Your task to perform on an android device: Find coffee shops on Maps Image 0: 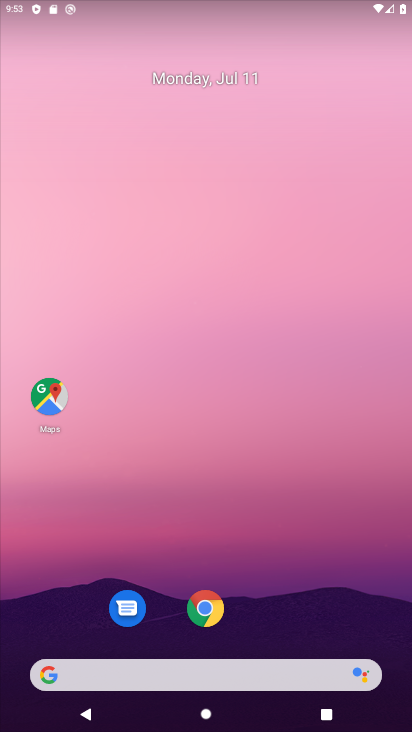
Step 0: click (41, 388)
Your task to perform on an android device: Find coffee shops on Maps Image 1: 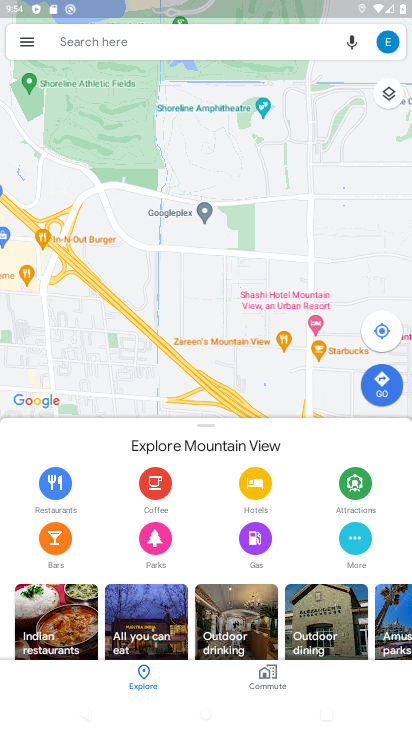
Step 1: click (59, 44)
Your task to perform on an android device: Find coffee shops on Maps Image 2: 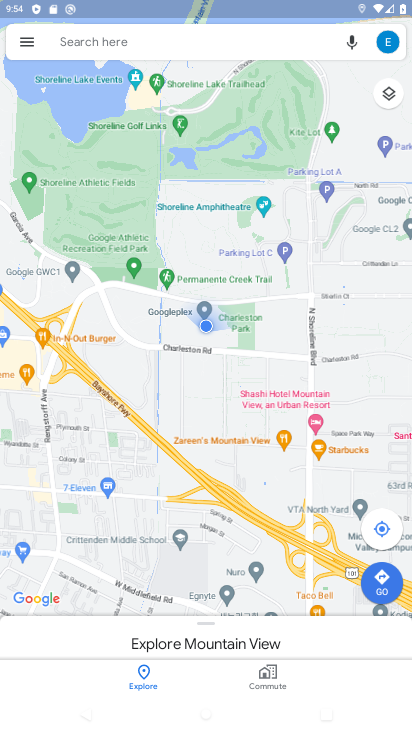
Step 2: click (64, 38)
Your task to perform on an android device: Find coffee shops on Maps Image 3: 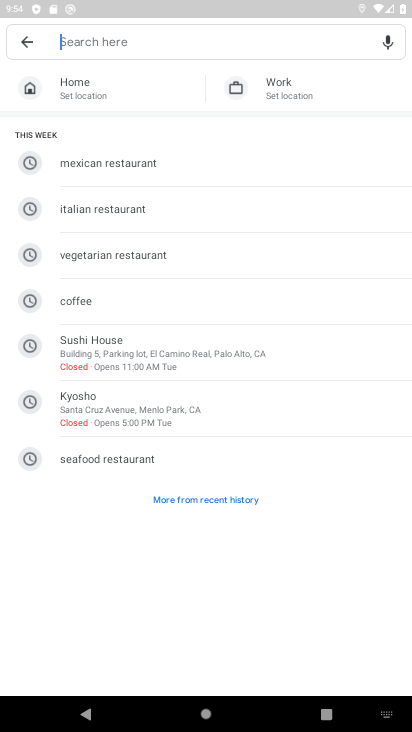
Step 3: type "coffee shops"
Your task to perform on an android device: Find coffee shops on Maps Image 4: 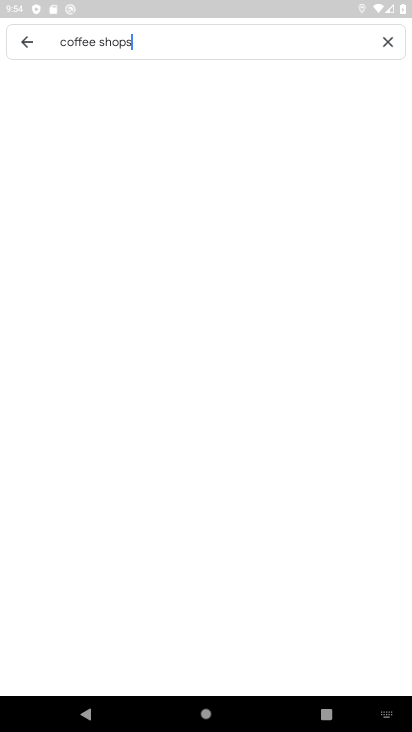
Step 4: type ""
Your task to perform on an android device: Find coffee shops on Maps Image 5: 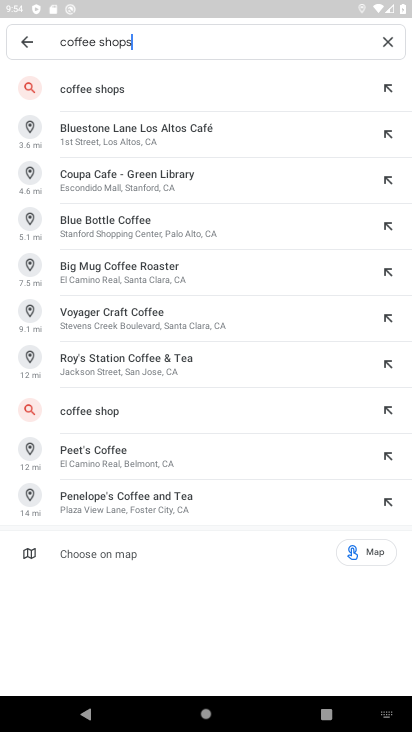
Step 5: click (98, 86)
Your task to perform on an android device: Find coffee shops on Maps Image 6: 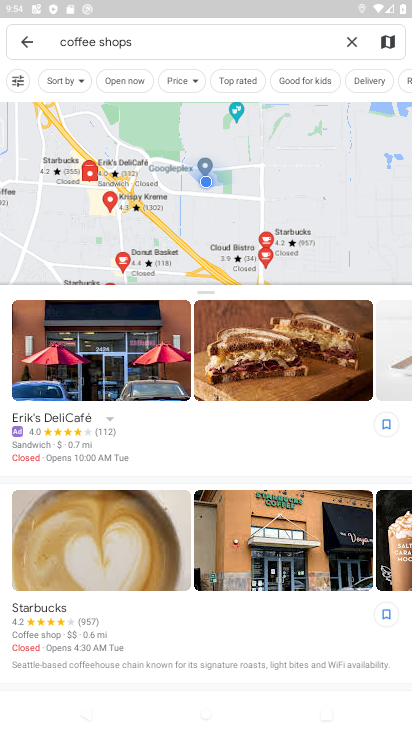
Step 6: task complete